Your task to perform on an android device: Go to ESPN.com Image 0: 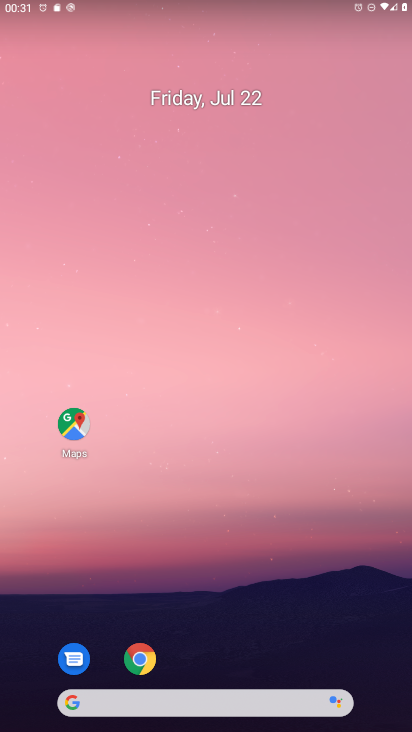
Step 0: click (142, 659)
Your task to perform on an android device: Go to ESPN.com Image 1: 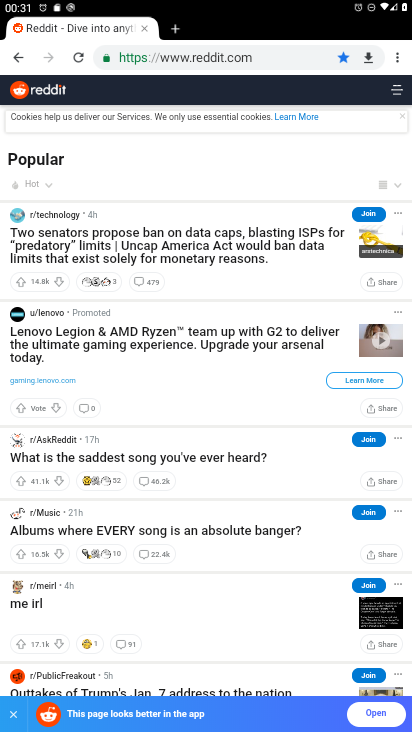
Step 1: click (297, 54)
Your task to perform on an android device: Go to ESPN.com Image 2: 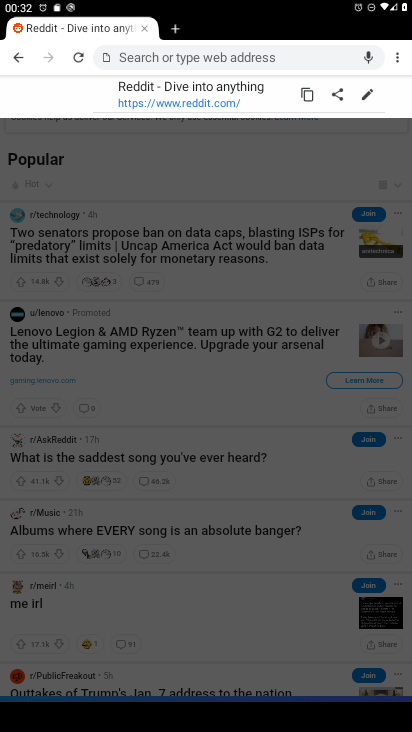
Step 2: type "ESPN.com"
Your task to perform on an android device: Go to ESPN.com Image 3: 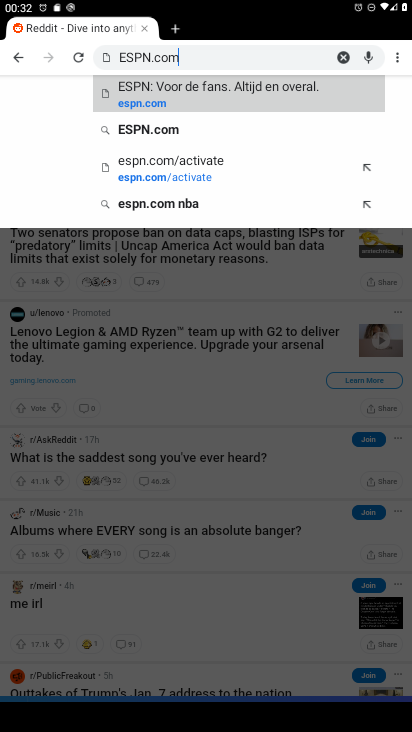
Step 3: click (152, 133)
Your task to perform on an android device: Go to ESPN.com Image 4: 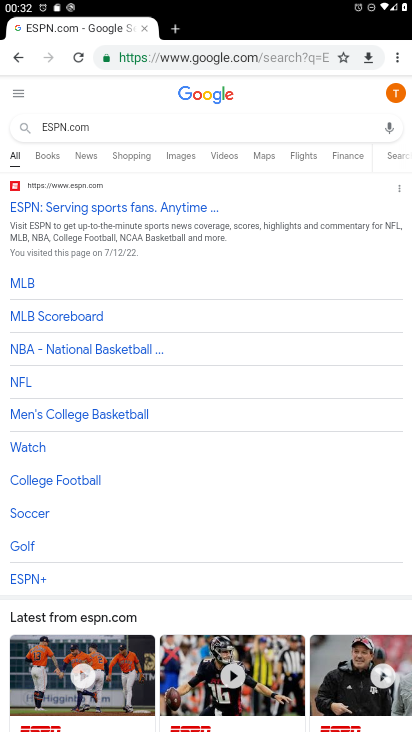
Step 4: click (84, 213)
Your task to perform on an android device: Go to ESPN.com Image 5: 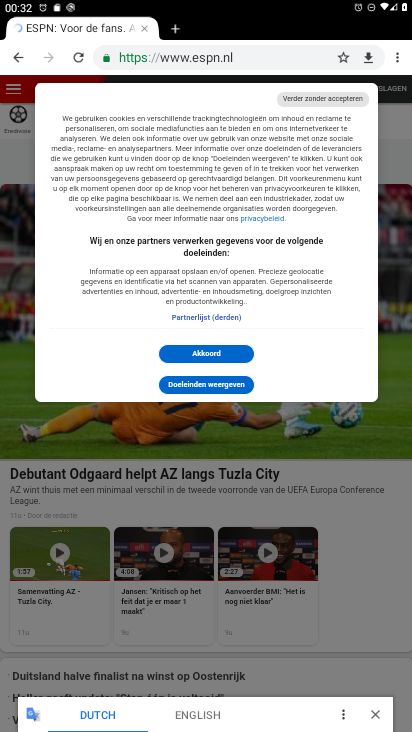
Step 5: click (213, 359)
Your task to perform on an android device: Go to ESPN.com Image 6: 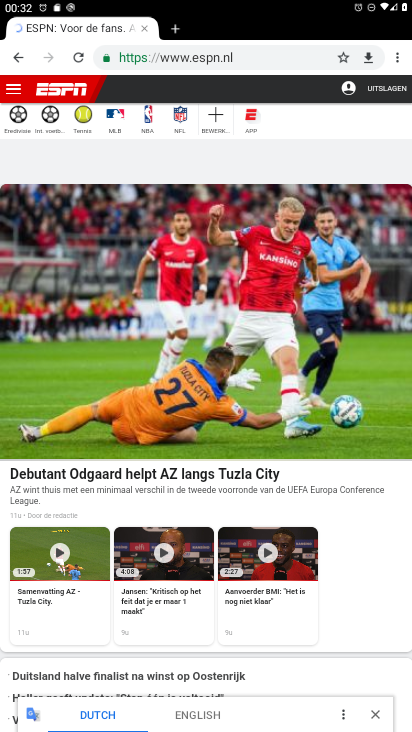
Step 6: task complete